Your task to perform on an android device: Is it going to rain today? Image 0: 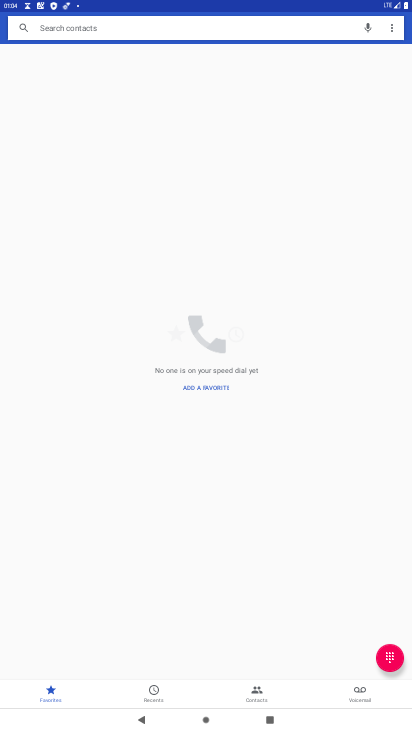
Step 0: press home button
Your task to perform on an android device: Is it going to rain today? Image 1: 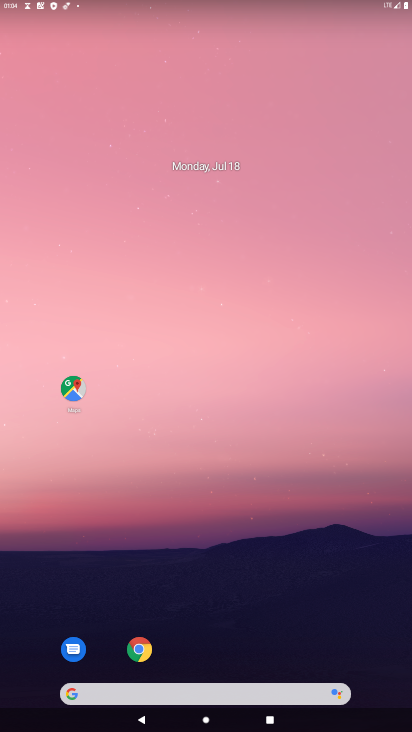
Step 1: drag from (210, 619) to (208, 131)
Your task to perform on an android device: Is it going to rain today? Image 2: 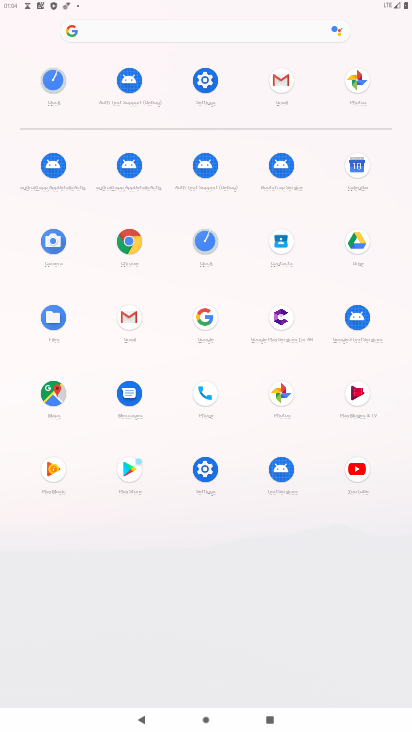
Step 2: click (206, 305)
Your task to perform on an android device: Is it going to rain today? Image 3: 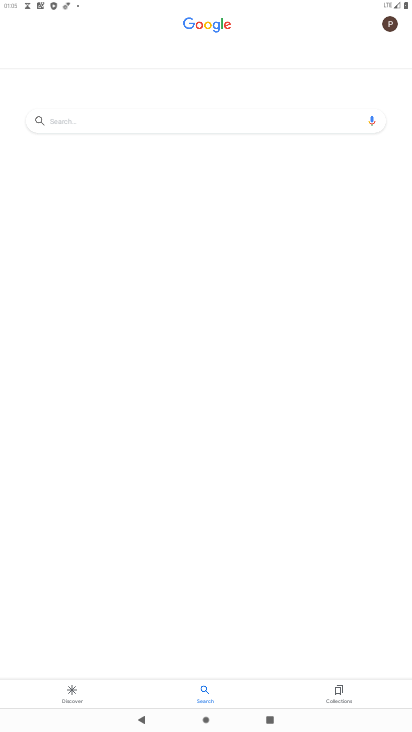
Step 3: click (186, 110)
Your task to perform on an android device: Is it going to rain today? Image 4: 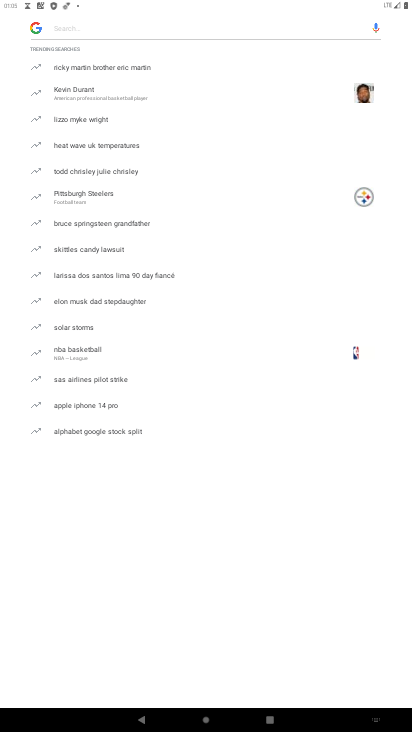
Step 4: type "wheather"
Your task to perform on an android device: Is it going to rain today? Image 5: 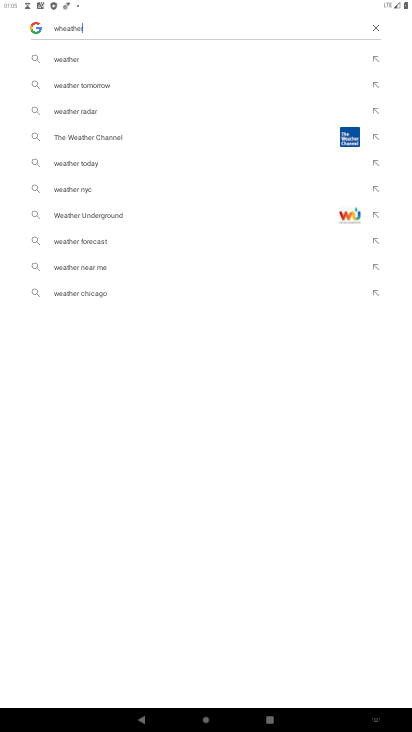
Step 5: click (63, 58)
Your task to perform on an android device: Is it going to rain today? Image 6: 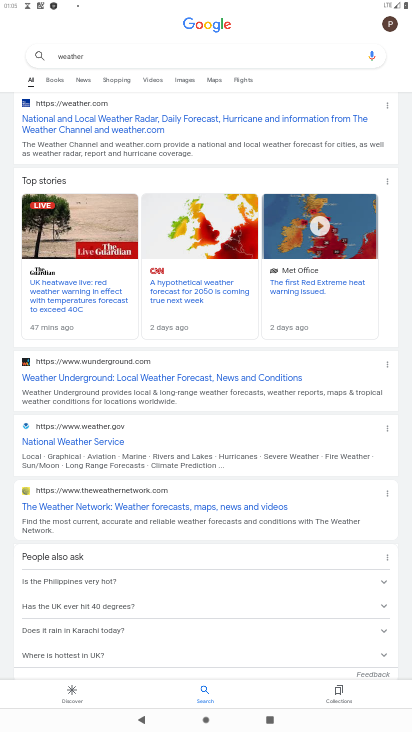
Step 6: task complete